Your task to perform on an android device: Go to Maps Image 0: 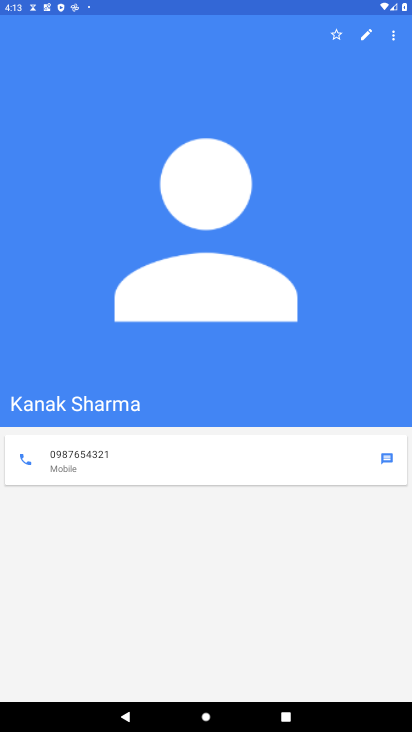
Step 0: press home button
Your task to perform on an android device: Go to Maps Image 1: 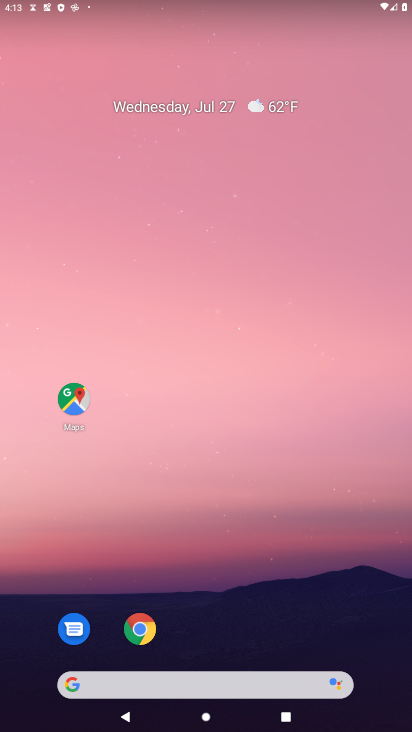
Step 1: click (72, 397)
Your task to perform on an android device: Go to Maps Image 2: 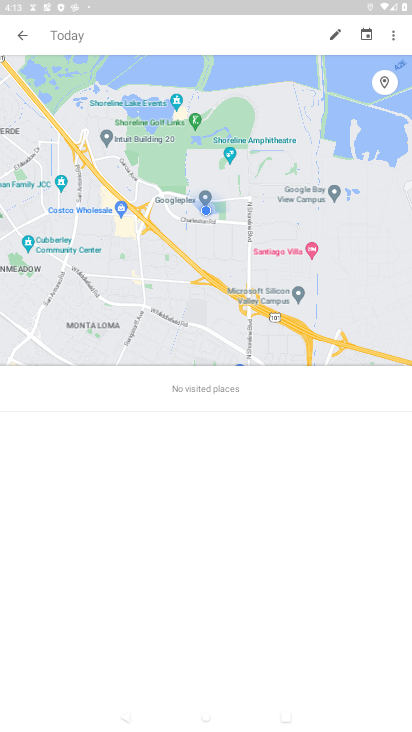
Step 2: task complete